Your task to perform on an android device: Open sound settings Image 0: 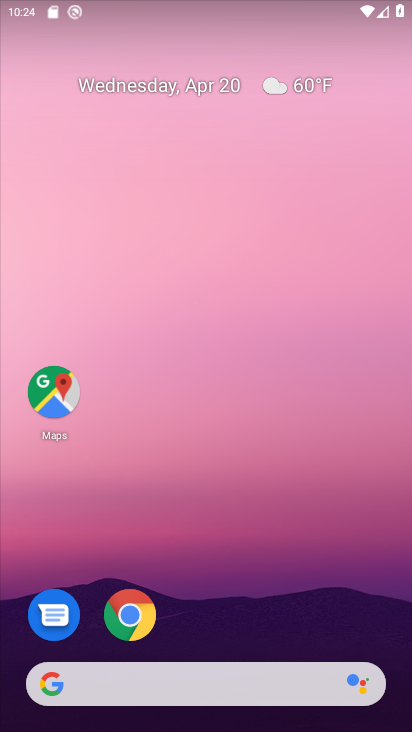
Step 0: drag from (333, 606) to (333, 149)
Your task to perform on an android device: Open sound settings Image 1: 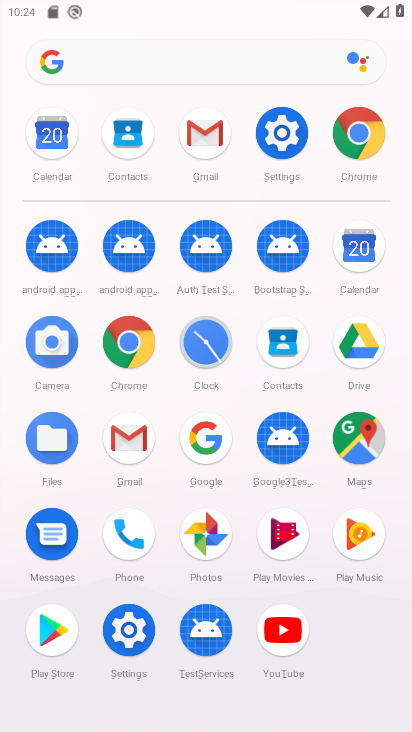
Step 1: click (137, 623)
Your task to perform on an android device: Open sound settings Image 2: 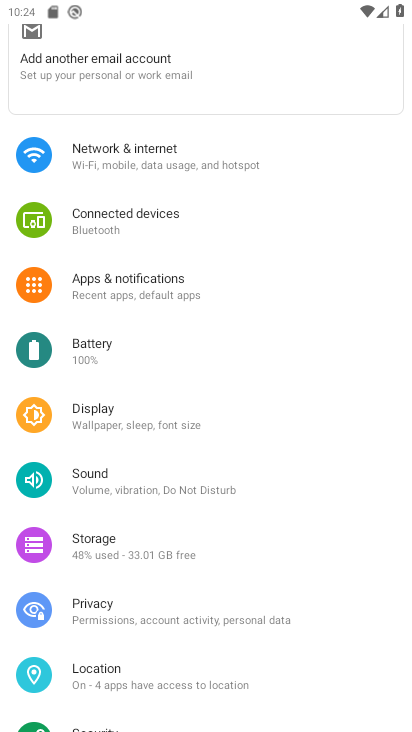
Step 2: click (121, 484)
Your task to perform on an android device: Open sound settings Image 3: 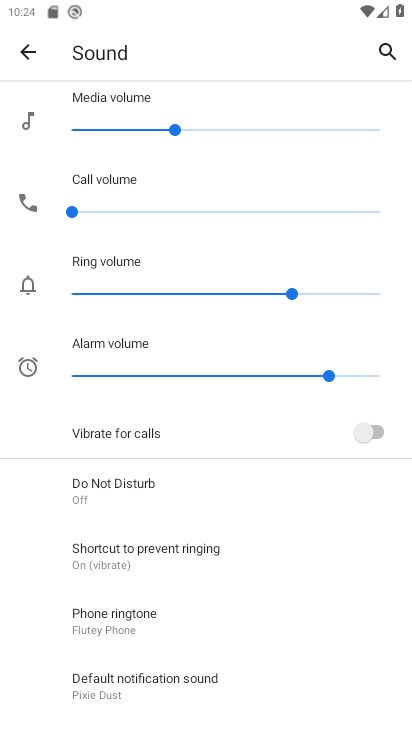
Step 3: task complete